Your task to perform on an android device: toggle show notifications on the lock screen Image 0: 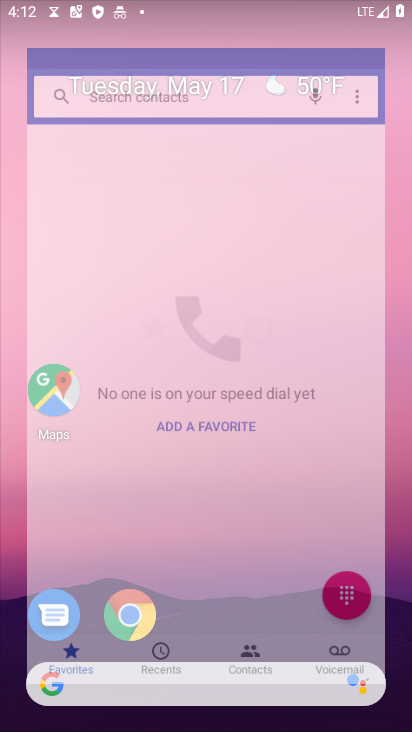
Step 0: drag from (277, 704) to (143, 103)
Your task to perform on an android device: toggle show notifications on the lock screen Image 1: 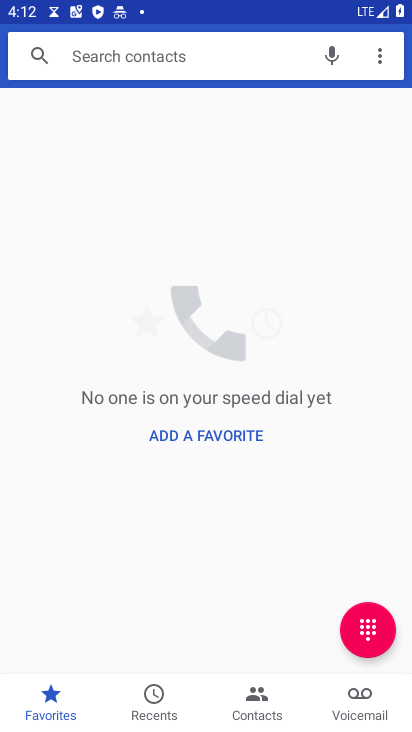
Step 1: press home button
Your task to perform on an android device: toggle show notifications on the lock screen Image 2: 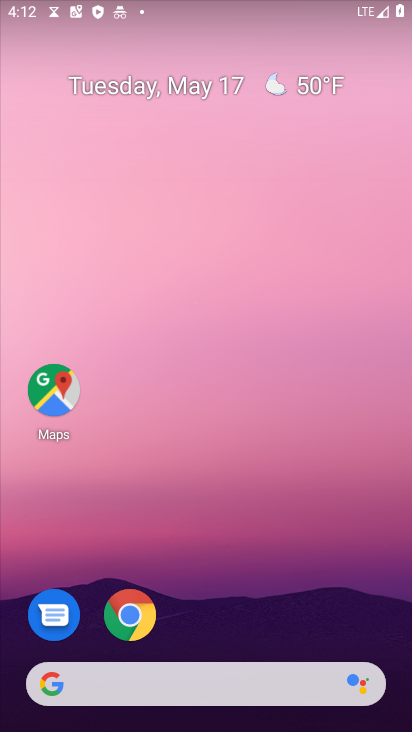
Step 2: drag from (336, 699) to (154, 0)
Your task to perform on an android device: toggle show notifications on the lock screen Image 3: 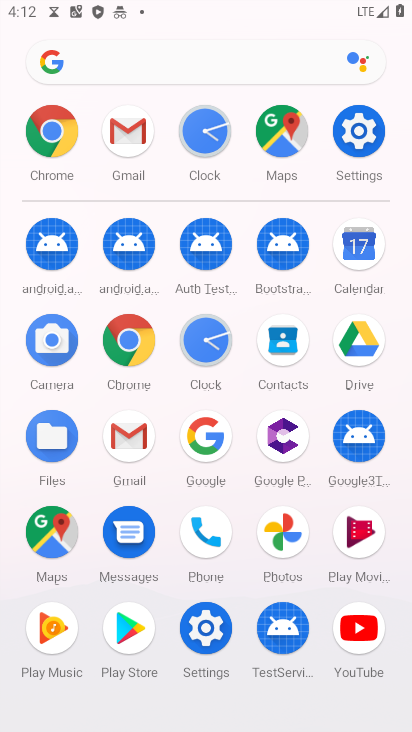
Step 3: click (352, 139)
Your task to perform on an android device: toggle show notifications on the lock screen Image 4: 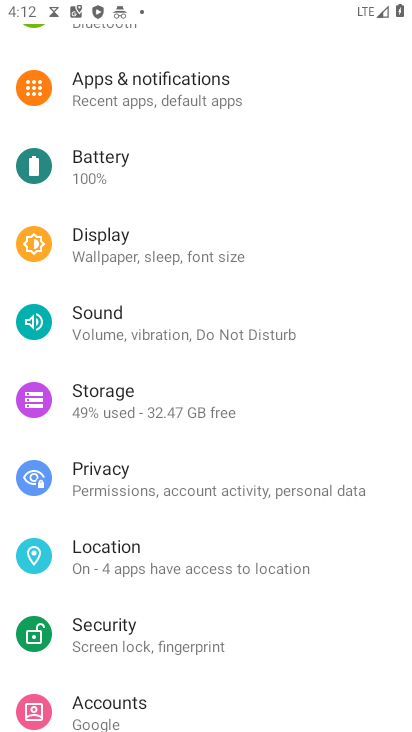
Step 4: click (156, 50)
Your task to perform on an android device: toggle show notifications on the lock screen Image 5: 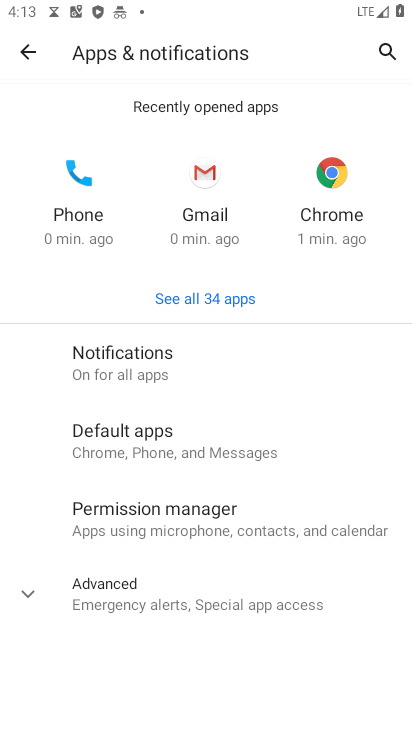
Step 5: click (143, 87)
Your task to perform on an android device: toggle show notifications on the lock screen Image 6: 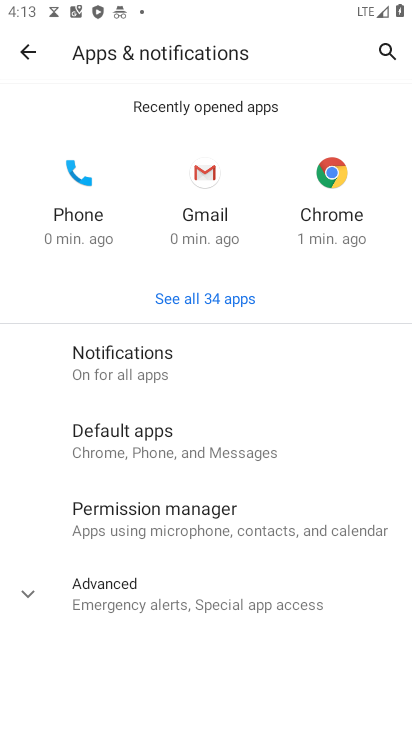
Step 6: click (110, 361)
Your task to perform on an android device: toggle show notifications on the lock screen Image 7: 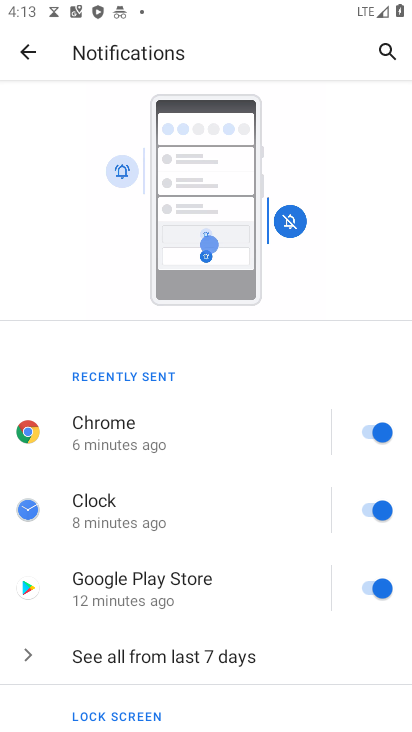
Step 7: drag from (151, 631) to (245, 100)
Your task to perform on an android device: toggle show notifications on the lock screen Image 8: 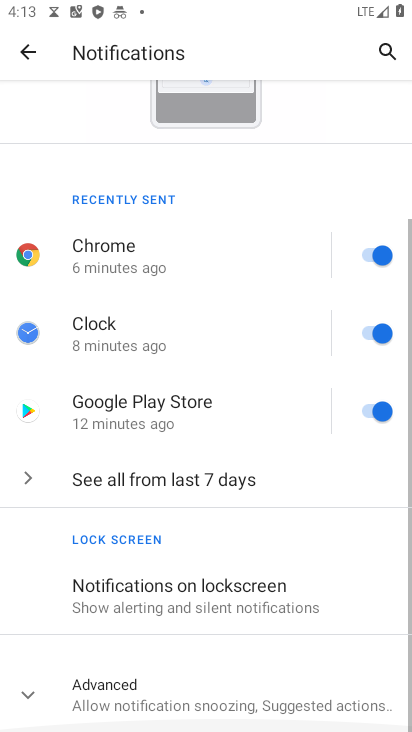
Step 8: drag from (206, 460) to (182, 117)
Your task to perform on an android device: toggle show notifications on the lock screen Image 9: 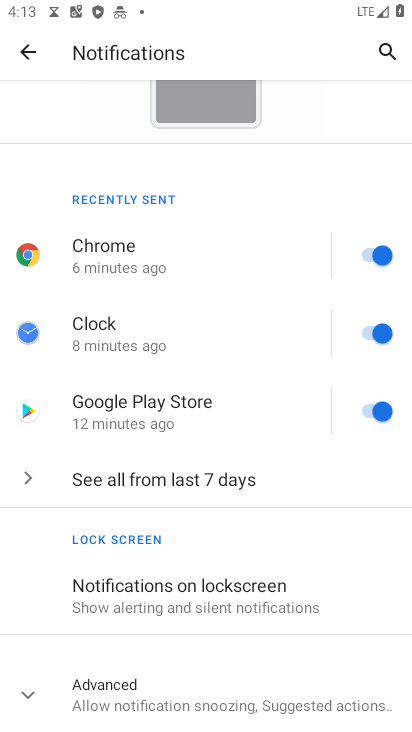
Step 9: click (145, 600)
Your task to perform on an android device: toggle show notifications on the lock screen Image 10: 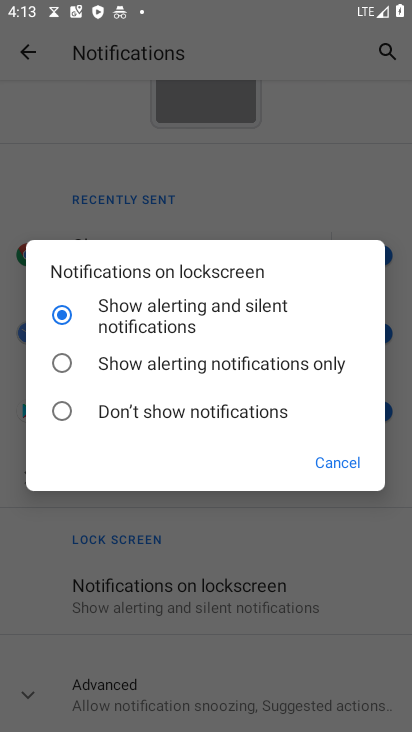
Step 10: click (342, 462)
Your task to perform on an android device: toggle show notifications on the lock screen Image 11: 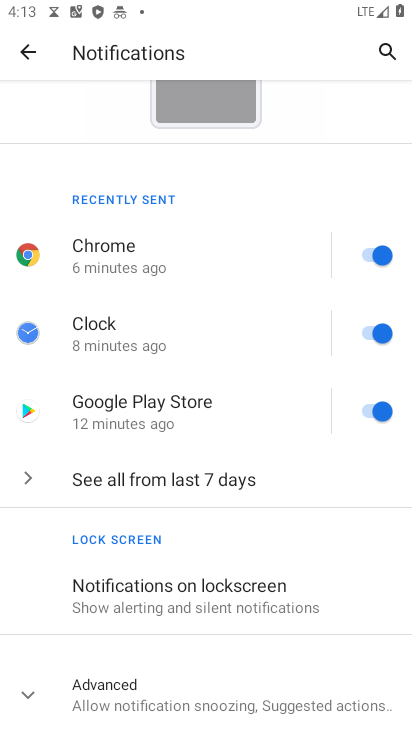
Step 11: task complete